Your task to perform on an android device: allow cookies in the chrome app Image 0: 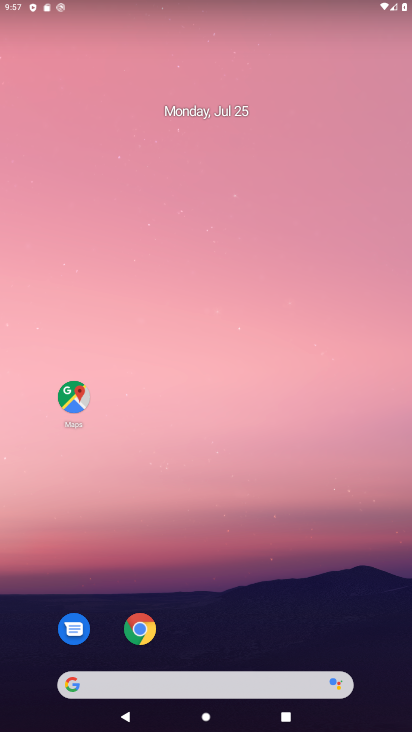
Step 0: drag from (254, 646) to (189, 83)
Your task to perform on an android device: allow cookies in the chrome app Image 1: 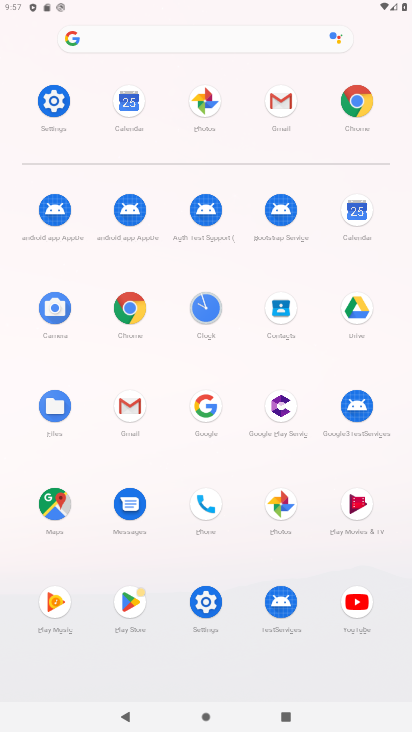
Step 1: click (352, 98)
Your task to perform on an android device: allow cookies in the chrome app Image 2: 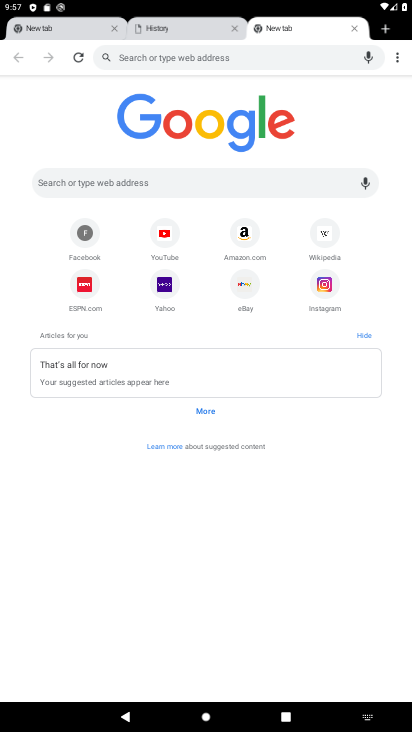
Step 2: drag from (399, 52) to (276, 253)
Your task to perform on an android device: allow cookies in the chrome app Image 3: 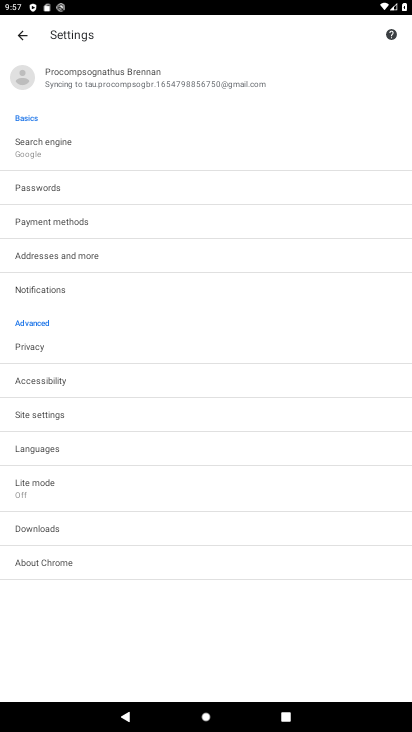
Step 3: click (56, 410)
Your task to perform on an android device: allow cookies in the chrome app Image 4: 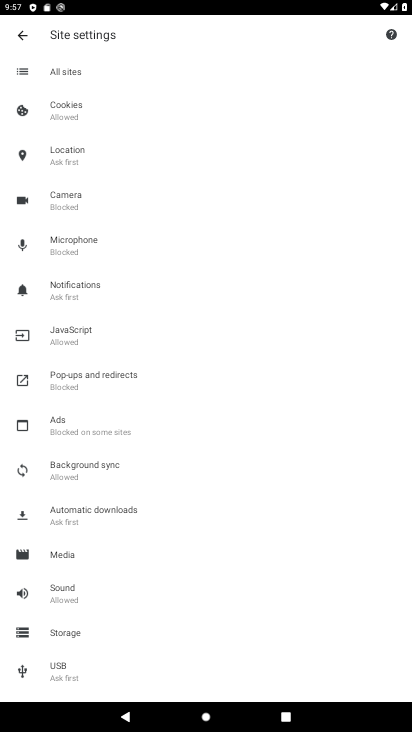
Step 4: click (69, 101)
Your task to perform on an android device: allow cookies in the chrome app Image 5: 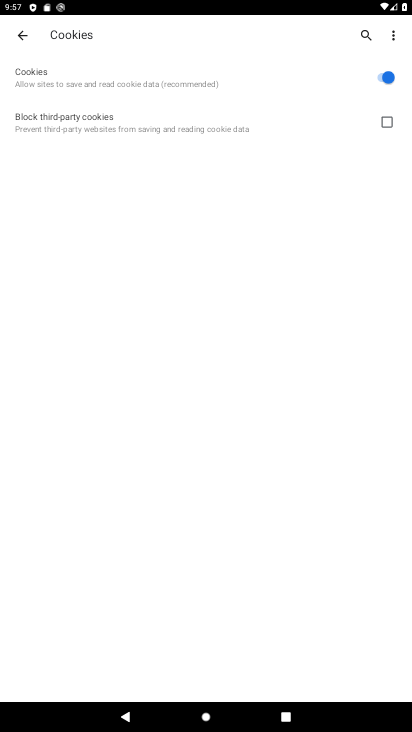
Step 5: task complete